Your task to perform on an android device: Open privacy settings Image 0: 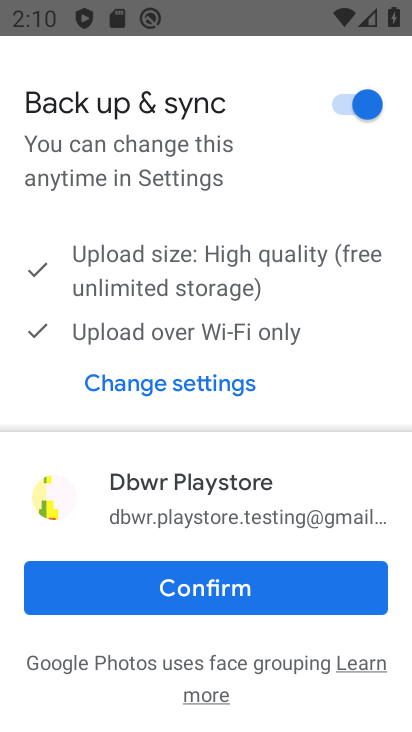
Step 0: press back button
Your task to perform on an android device: Open privacy settings Image 1: 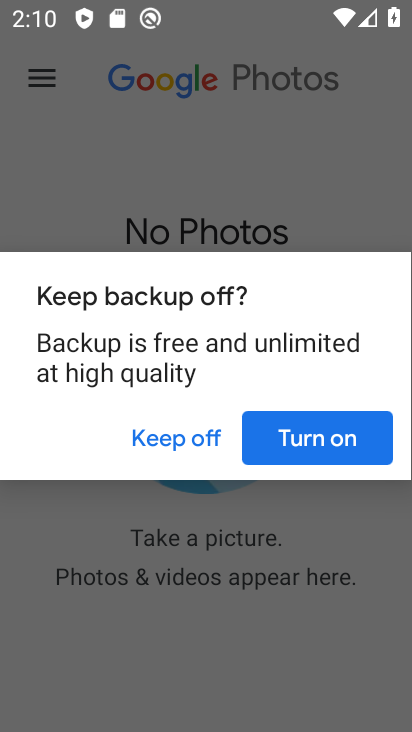
Step 1: click (172, 438)
Your task to perform on an android device: Open privacy settings Image 2: 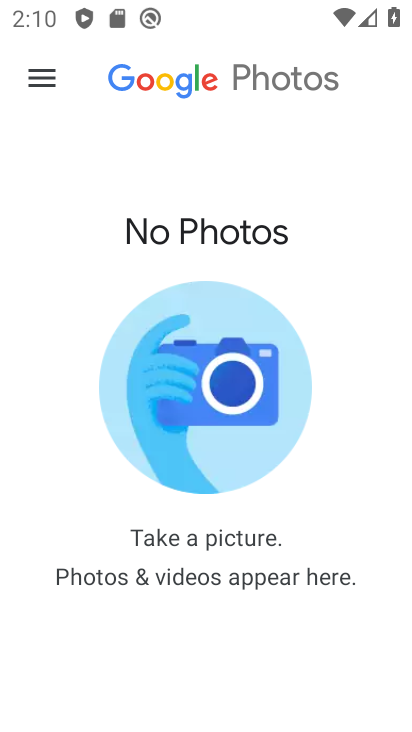
Step 2: press back button
Your task to perform on an android device: Open privacy settings Image 3: 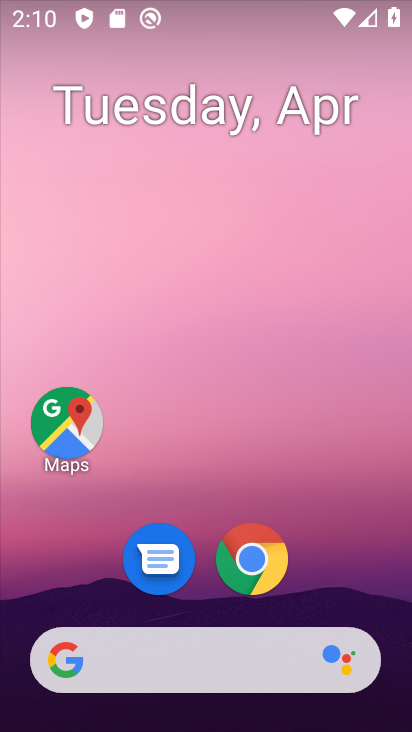
Step 3: click (259, 547)
Your task to perform on an android device: Open privacy settings Image 4: 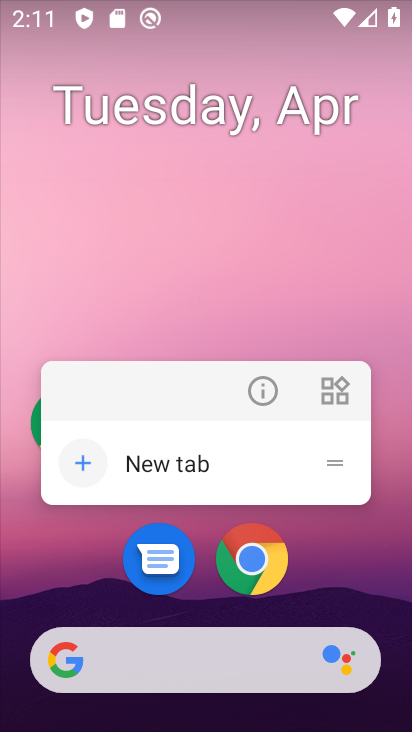
Step 4: click (258, 570)
Your task to perform on an android device: Open privacy settings Image 5: 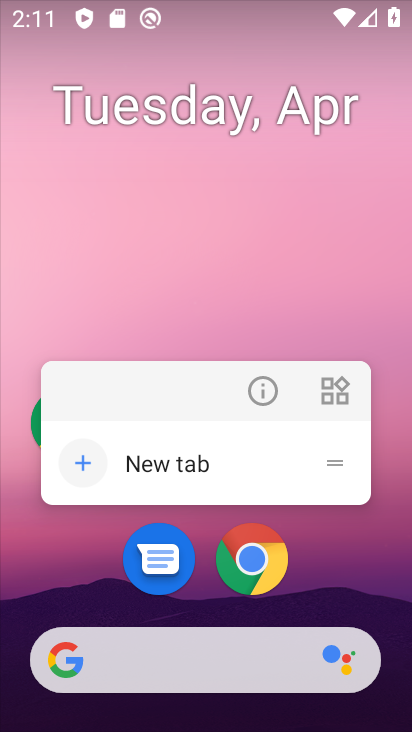
Step 5: click (253, 585)
Your task to perform on an android device: Open privacy settings Image 6: 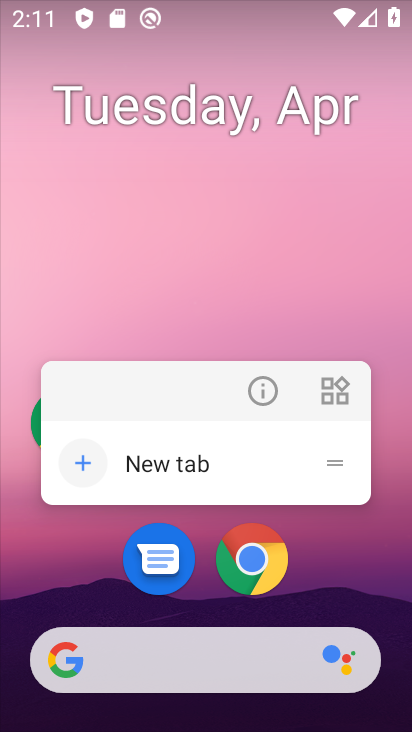
Step 6: click (253, 585)
Your task to perform on an android device: Open privacy settings Image 7: 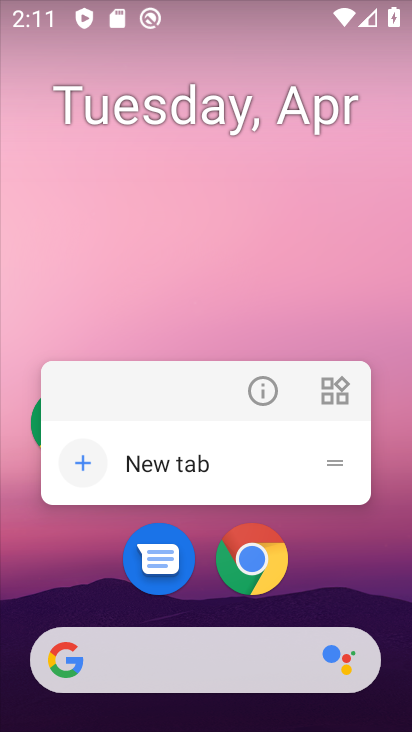
Step 7: click (253, 579)
Your task to perform on an android device: Open privacy settings Image 8: 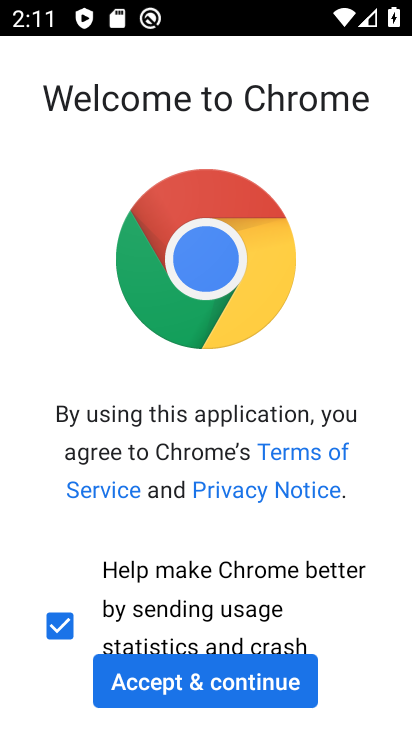
Step 8: click (219, 673)
Your task to perform on an android device: Open privacy settings Image 9: 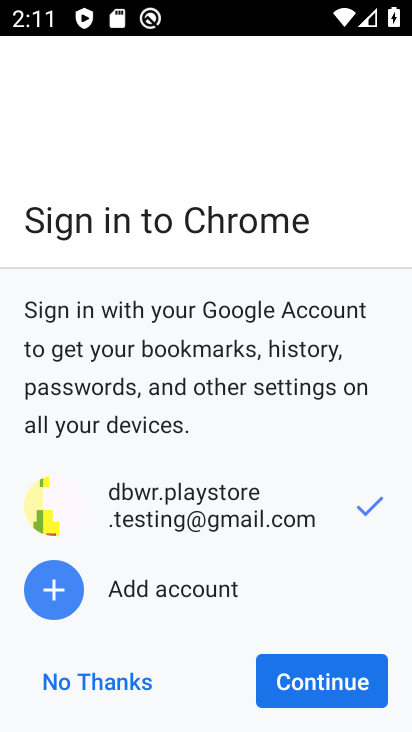
Step 9: click (344, 694)
Your task to perform on an android device: Open privacy settings Image 10: 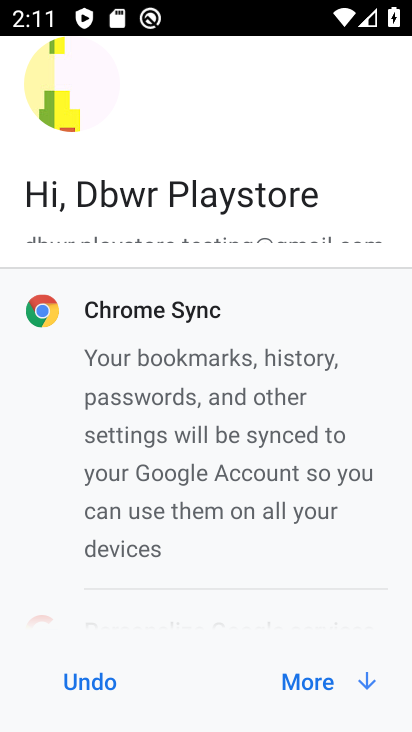
Step 10: click (341, 694)
Your task to perform on an android device: Open privacy settings Image 11: 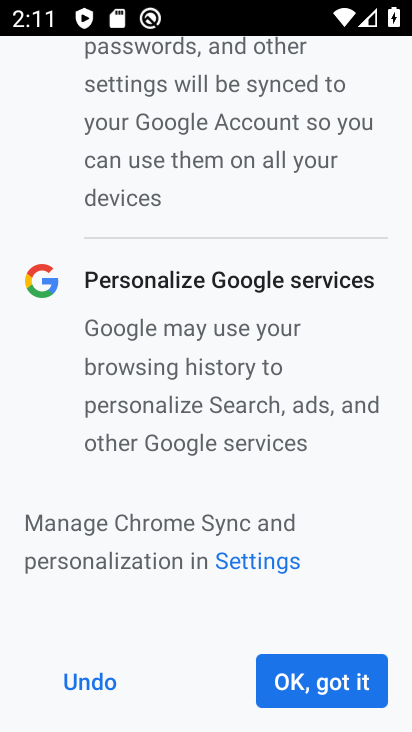
Step 11: click (341, 693)
Your task to perform on an android device: Open privacy settings Image 12: 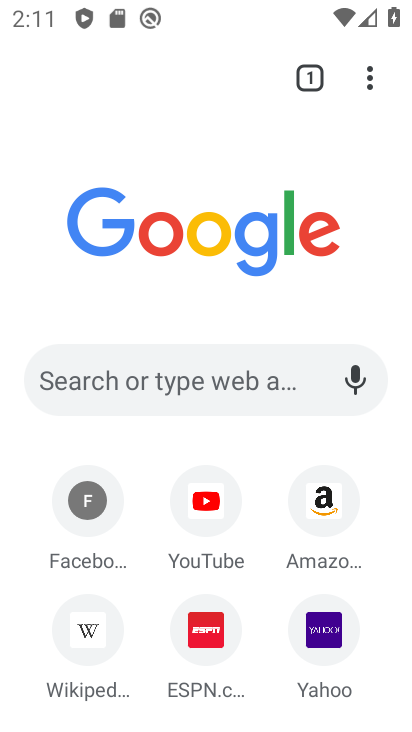
Step 12: click (374, 86)
Your task to perform on an android device: Open privacy settings Image 13: 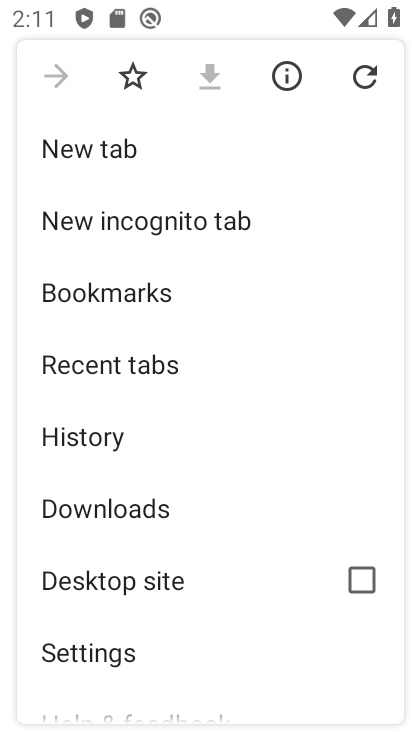
Step 13: drag from (158, 597) to (235, 313)
Your task to perform on an android device: Open privacy settings Image 14: 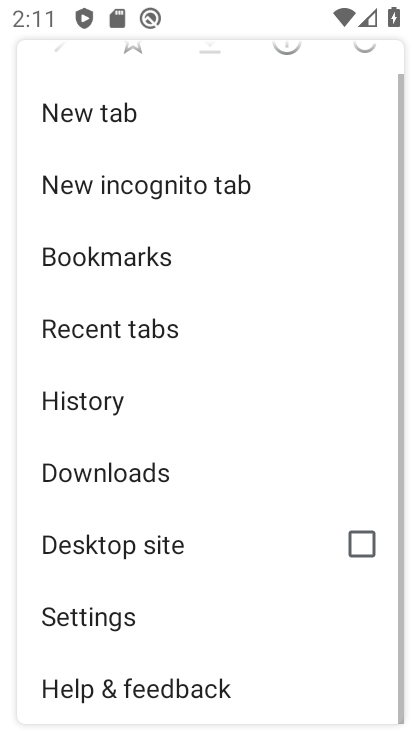
Step 14: click (138, 613)
Your task to perform on an android device: Open privacy settings Image 15: 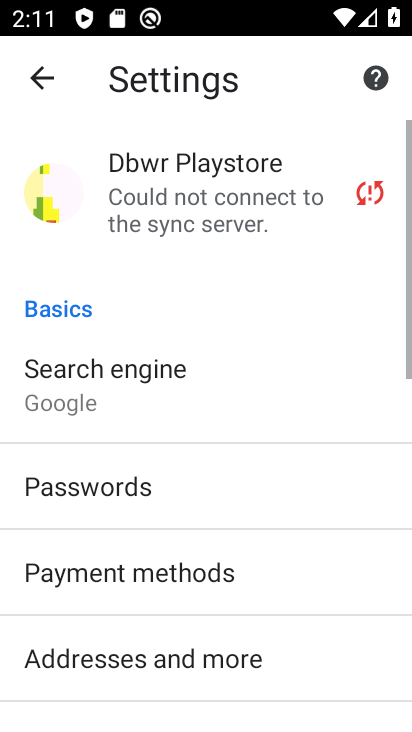
Step 15: drag from (167, 643) to (311, 230)
Your task to perform on an android device: Open privacy settings Image 16: 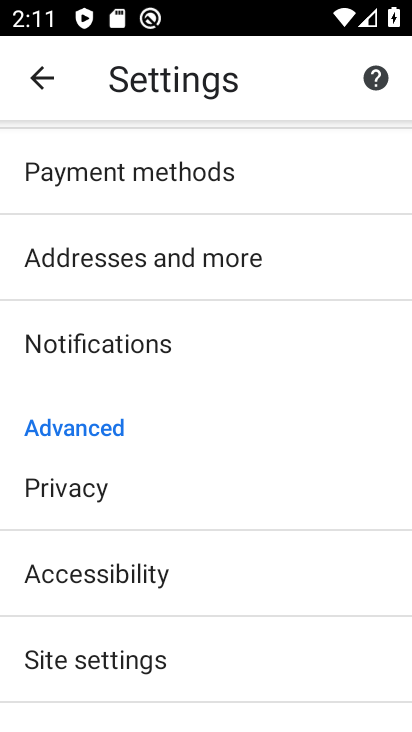
Step 16: click (117, 500)
Your task to perform on an android device: Open privacy settings Image 17: 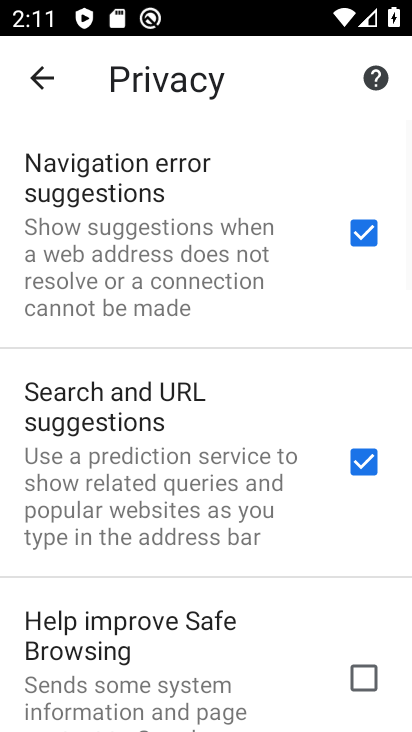
Step 17: task complete